Your task to perform on an android device: Search for a new highlighter Image 0: 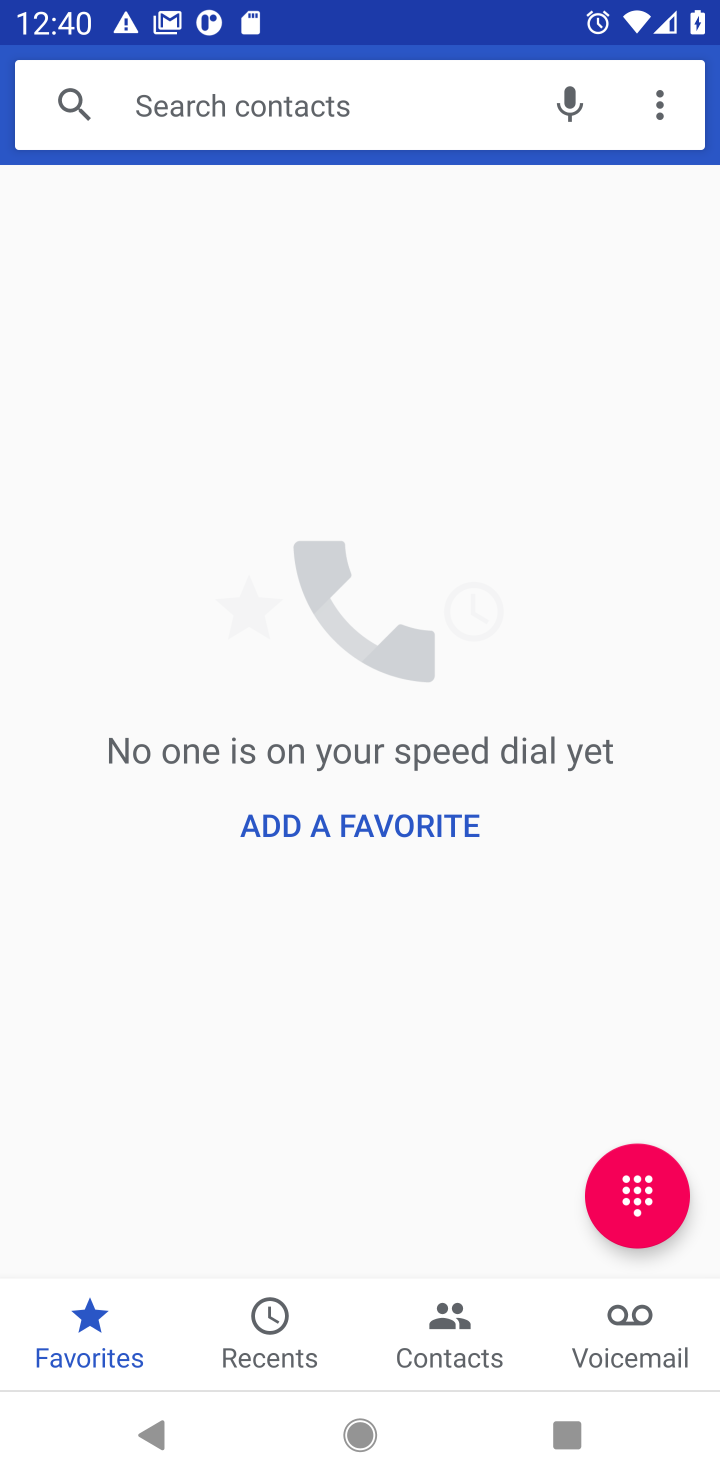
Step 0: press home button
Your task to perform on an android device: Search for a new highlighter Image 1: 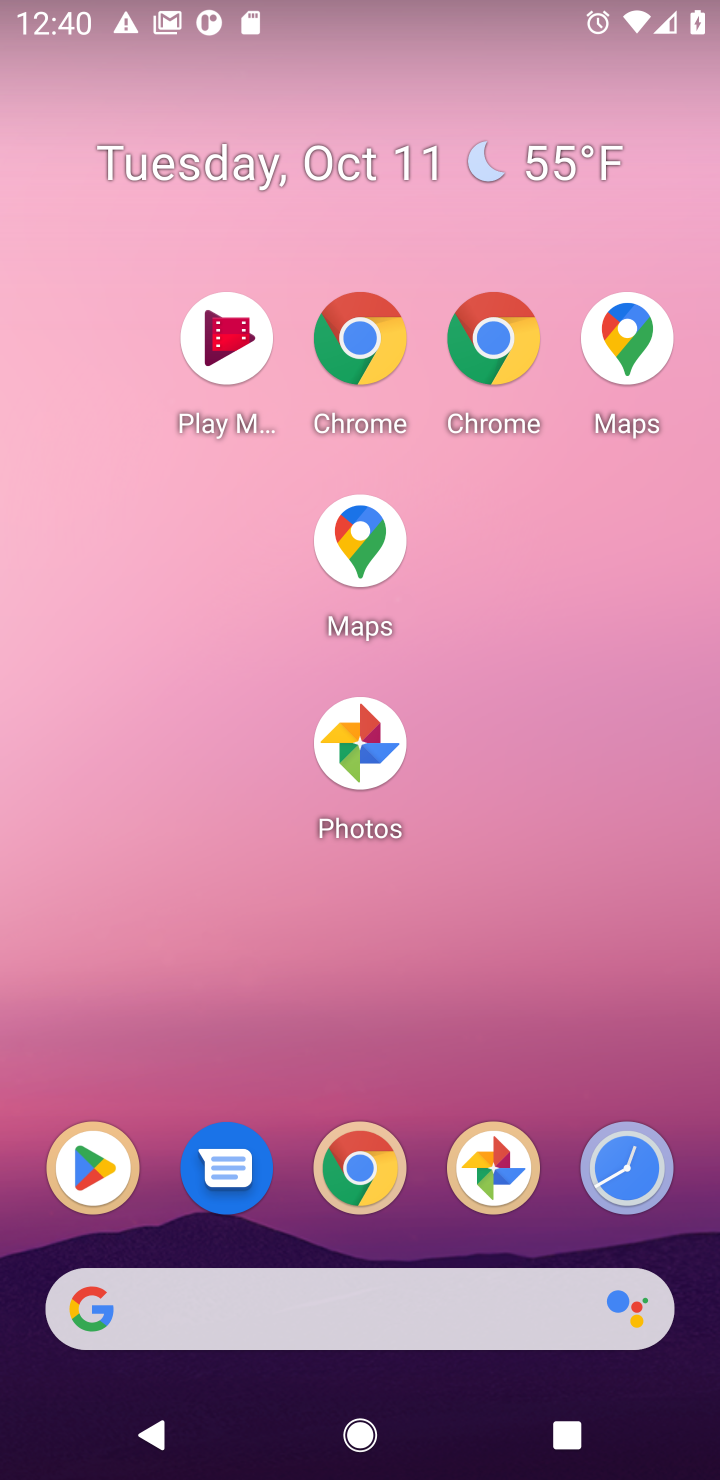
Step 1: drag from (490, 505) to (489, 51)
Your task to perform on an android device: Search for a new highlighter Image 2: 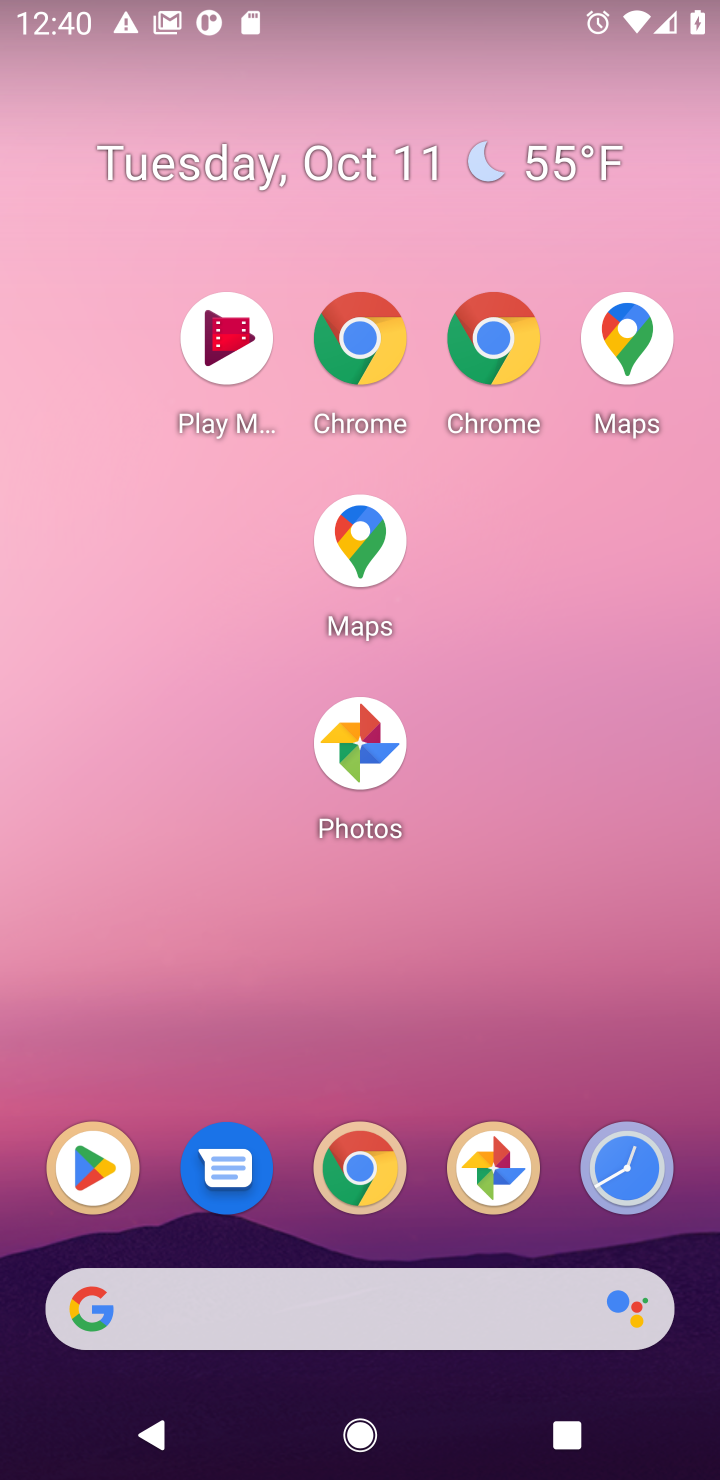
Step 2: drag from (501, 1007) to (475, 465)
Your task to perform on an android device: Search for a new highlighter Image 3: 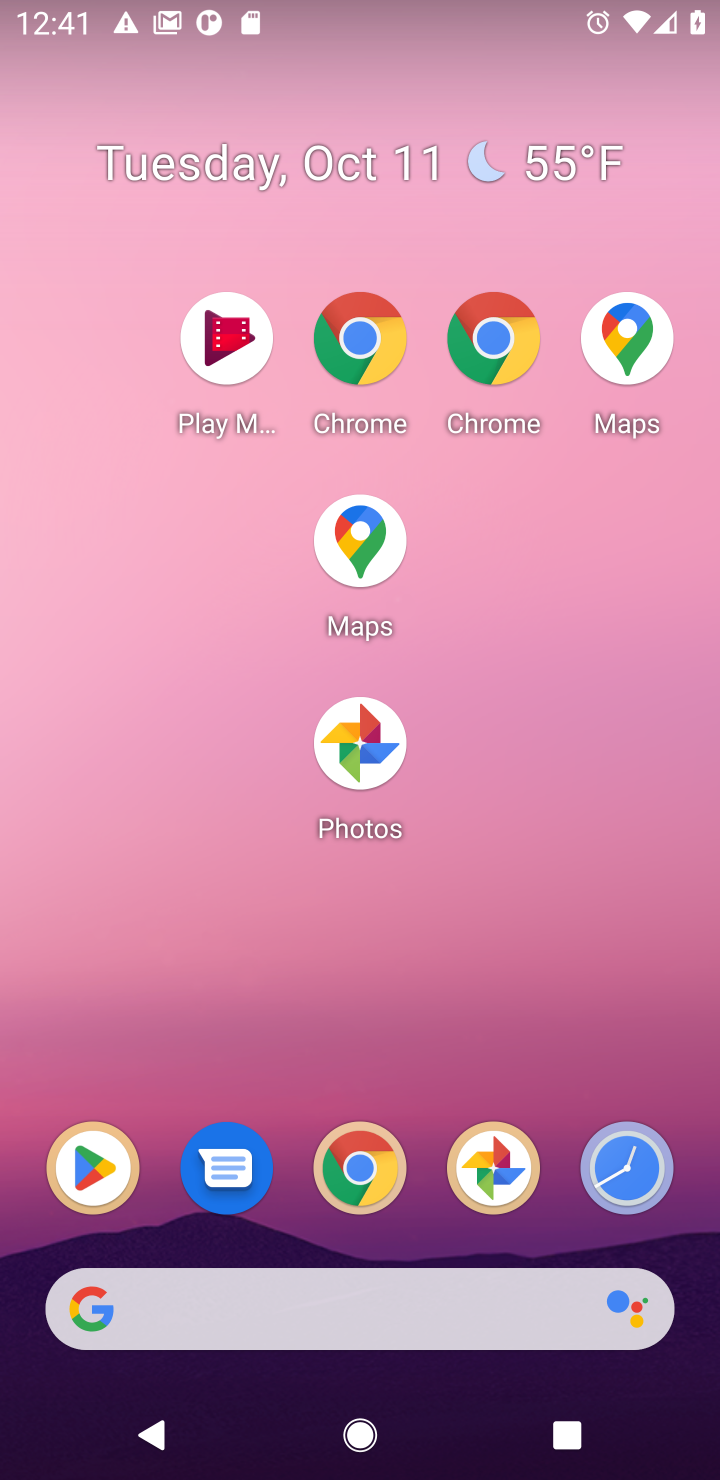
Step 3: drag from (476, 1130) to (478, 320)
Your task to perform on an android device: Search for a new highlighter Image 4: 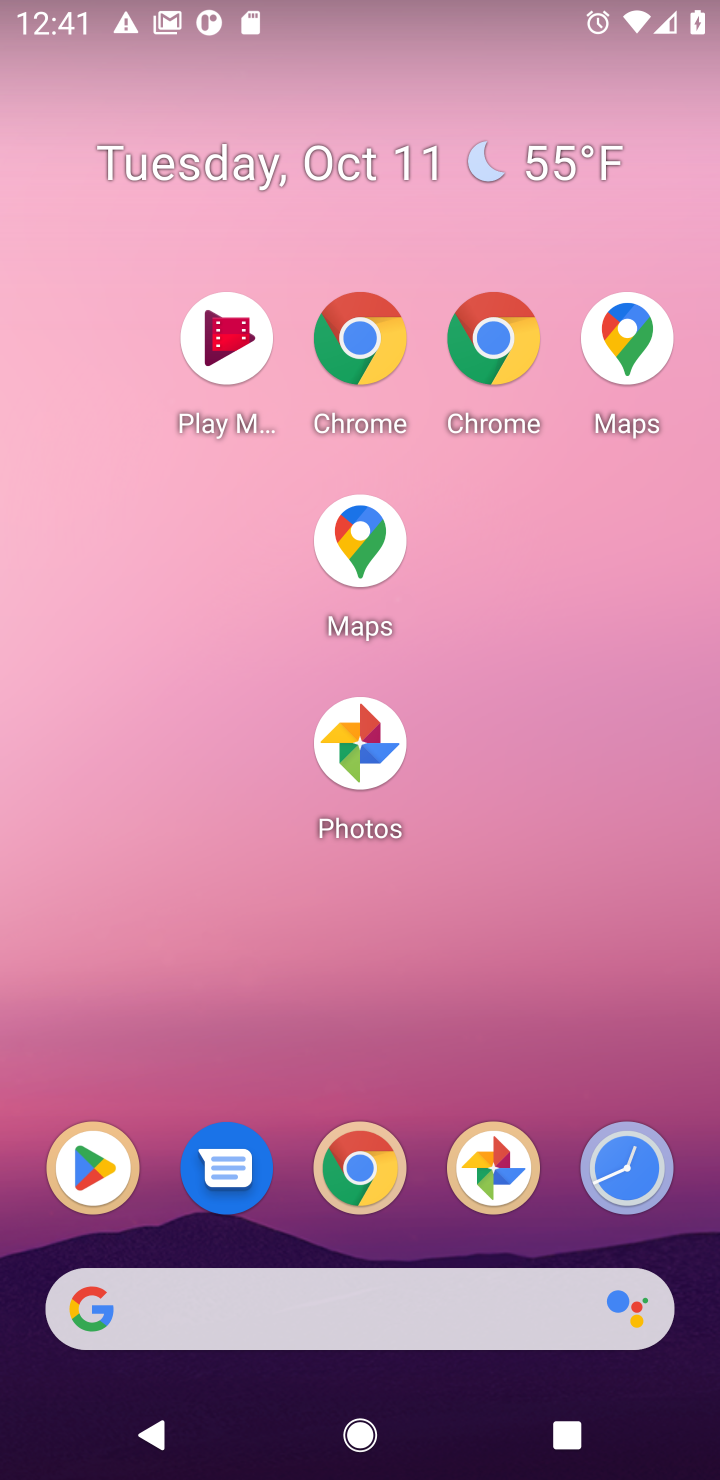
Step 4: drag from (441, 1155) to (442, 303)
Your task to perform on an android device: Search for a new highlighter Image 5: 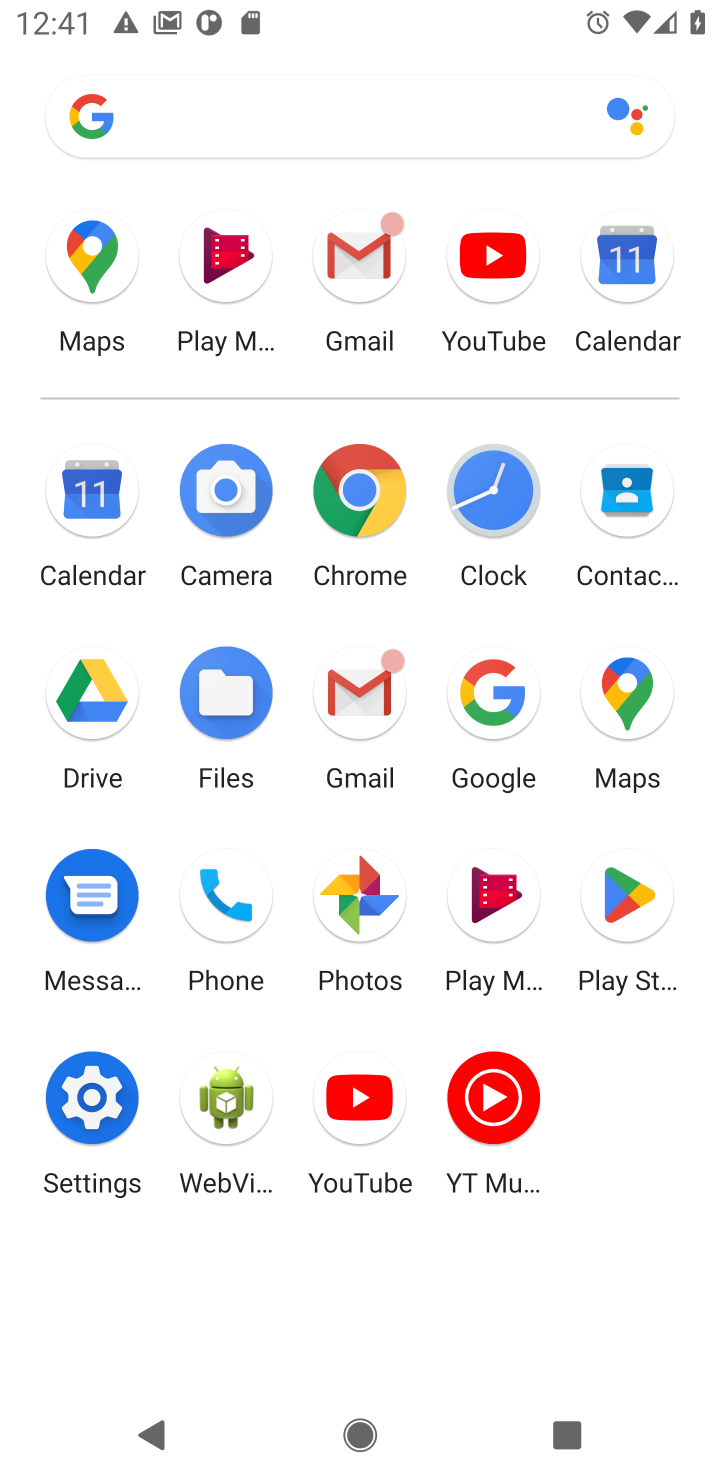
Step 5: click (525, 750)
Your task to perform on an android device: Search for a new highlighter Image 6: 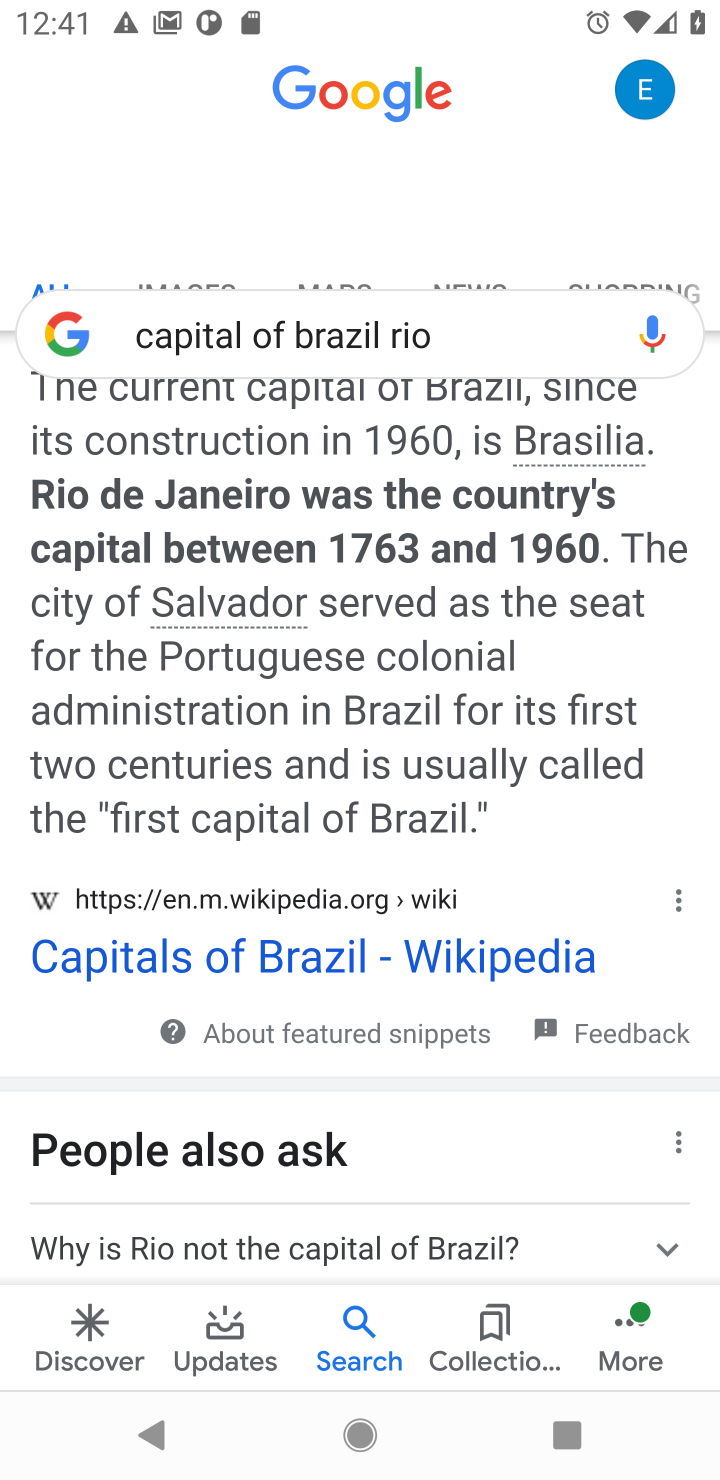
Step 6: click (481, 341)
Your task to perform on an android device: Search for a new highlighter Image 7: 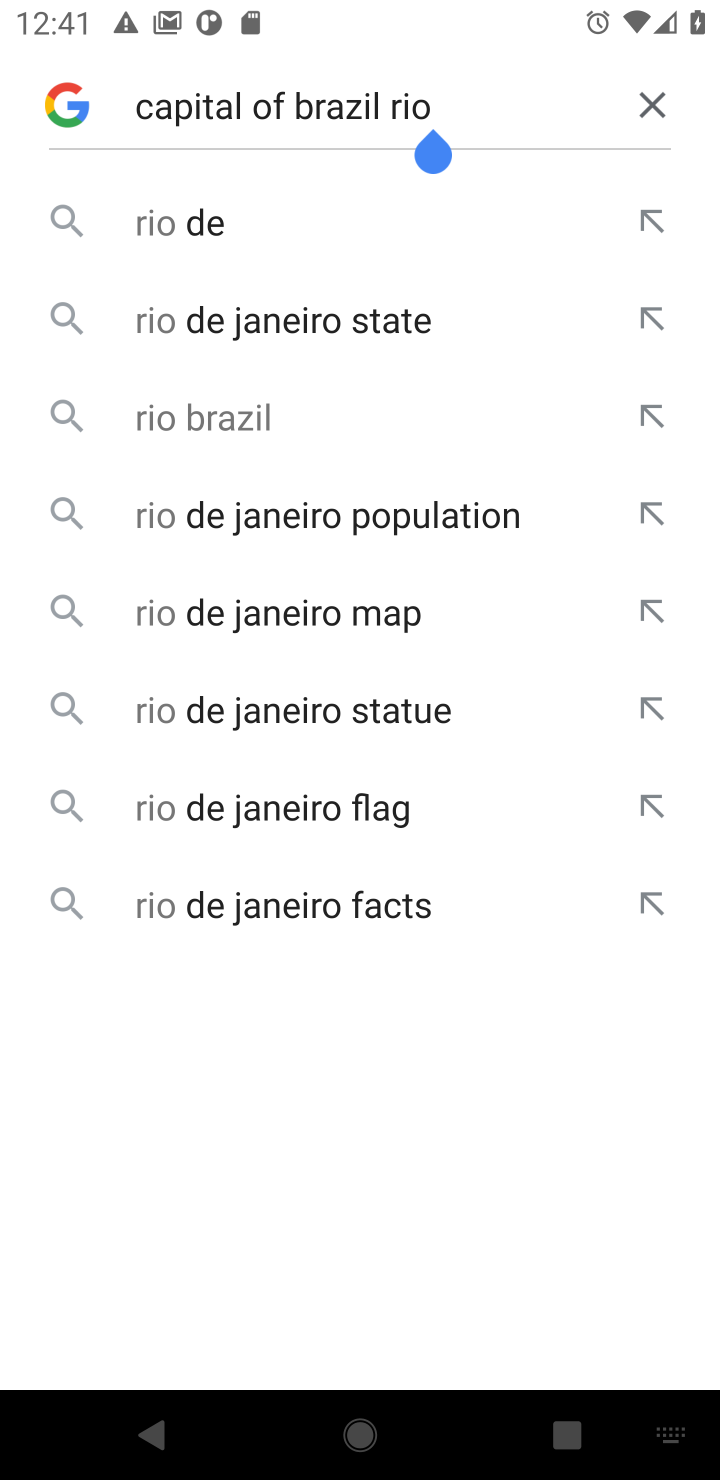
Step 7: click (640, 111)
Your task to perform on an android device: Search for a new highlighter Image 8: 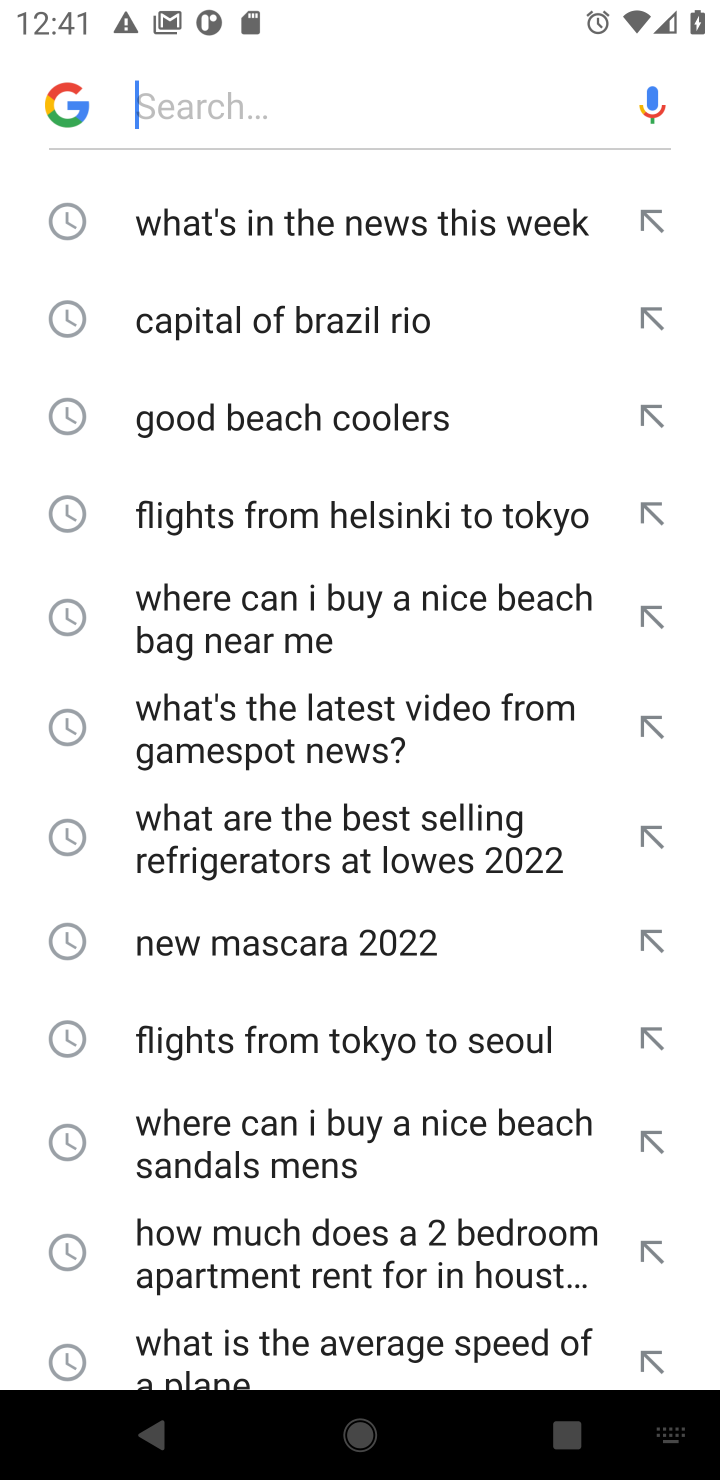
Step 8: type "new highlighter"
Your task to perform on an android device: Search for a new highlighter Image 9: 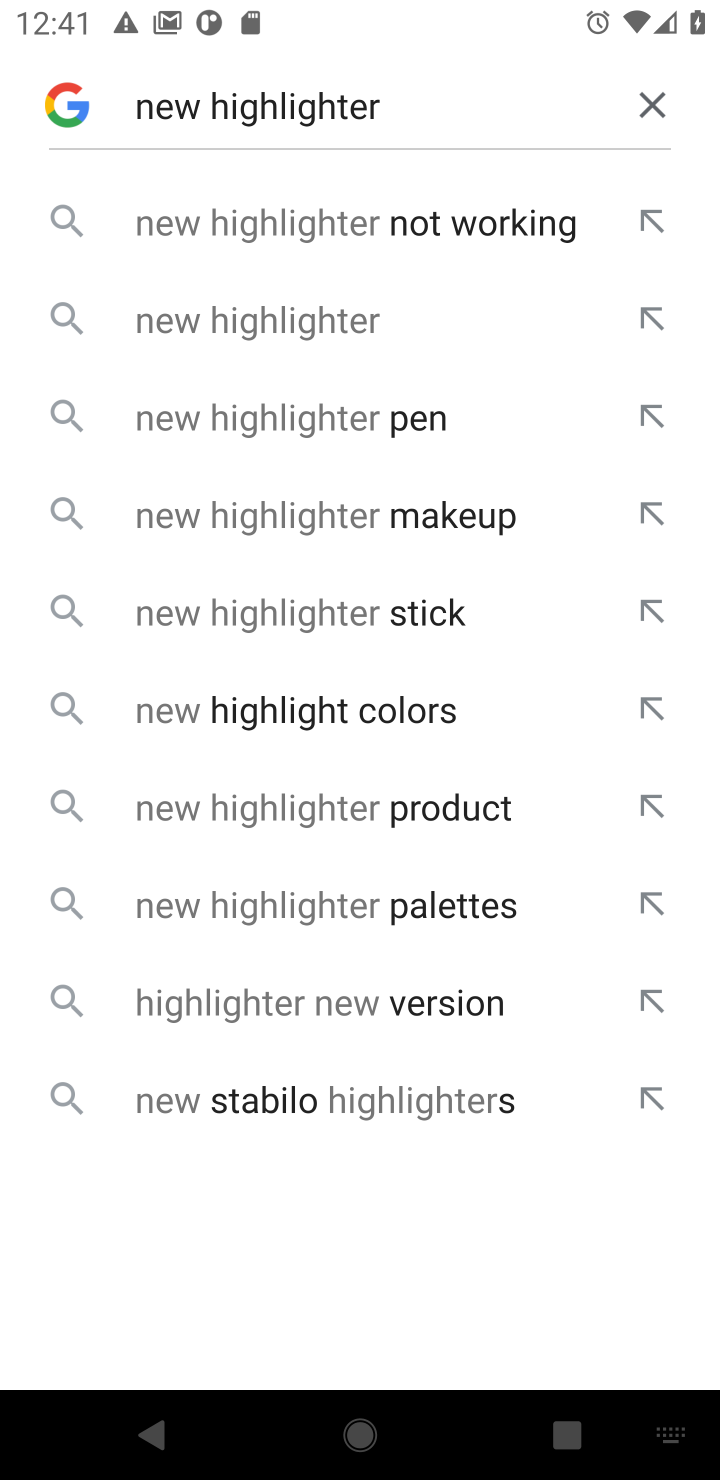
Step 9: click (331, 317)
Your task to perform on an android device: Search for a new highlighter Image 10: 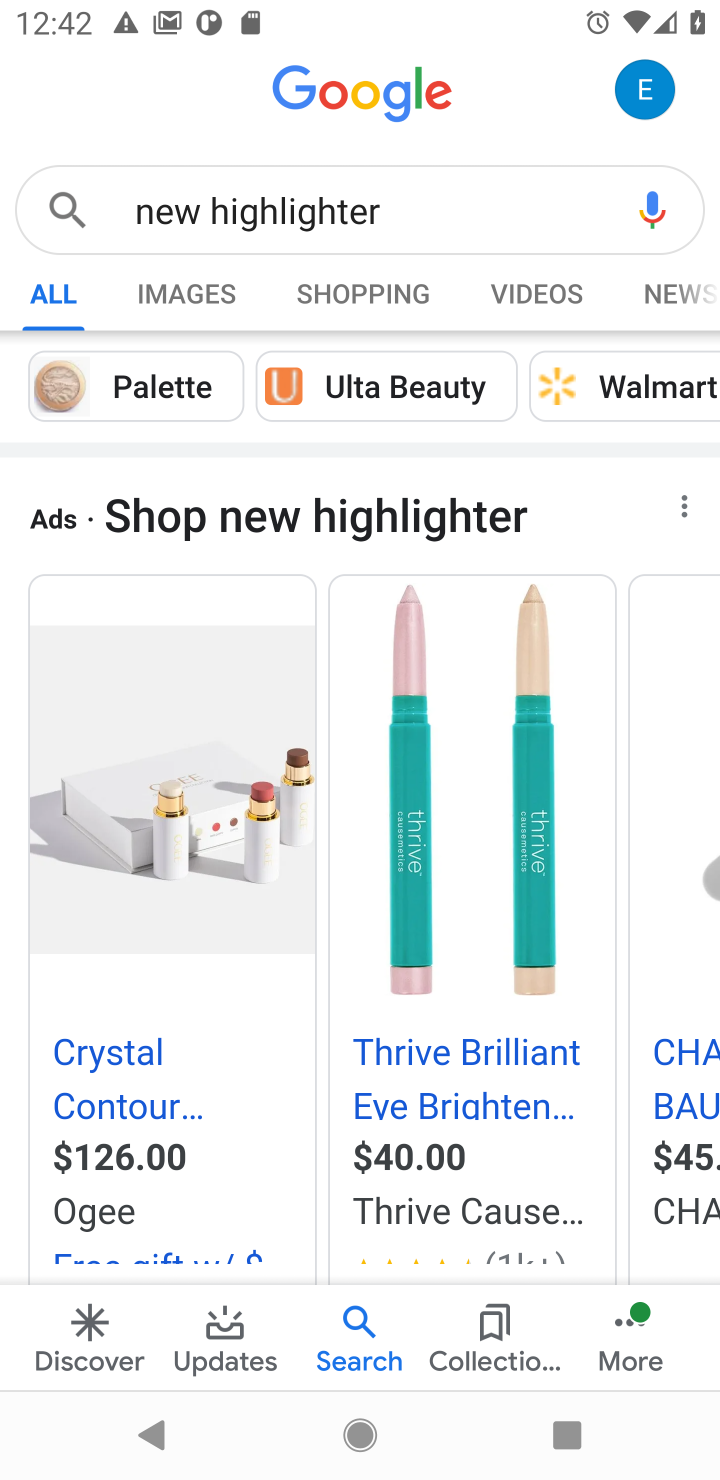
Step 10: task complete